Your task to perform on an android device: set the timer Image 0: 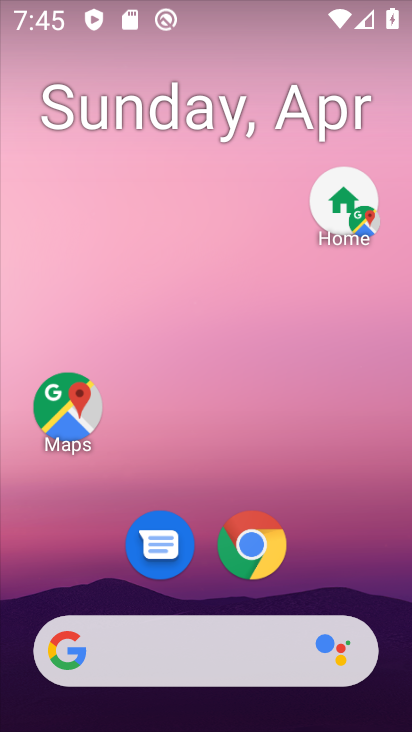
Step 0: drag from (313, 586) to (295, 130)
Your task to perform on an android device: set the timer Image 1: 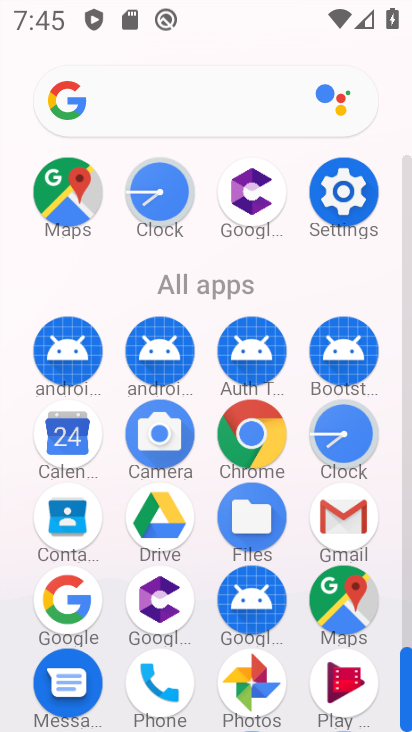
Step 1: click (334, 429)
Your task to perform on an android device: set the timer Image 2: 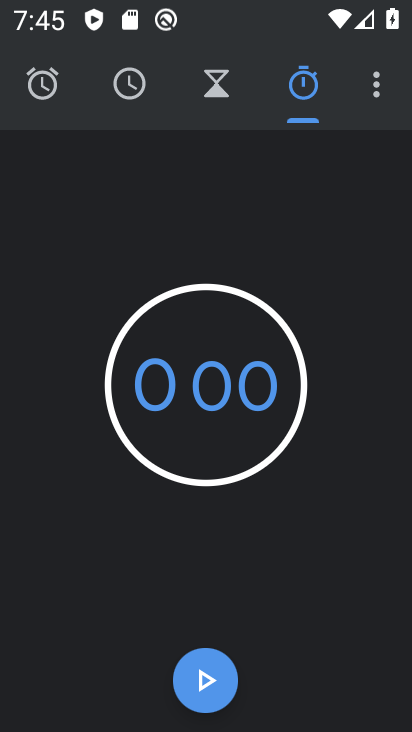
Step 2: click (221, 71)
Your task to perform on an android device: set the timer Image 3: 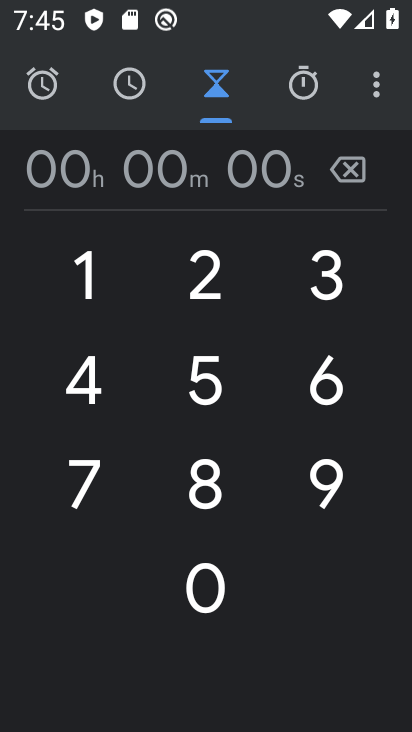
Step 3: click (92, 179)
Your task to perform on an android device: set the timer Image 4: 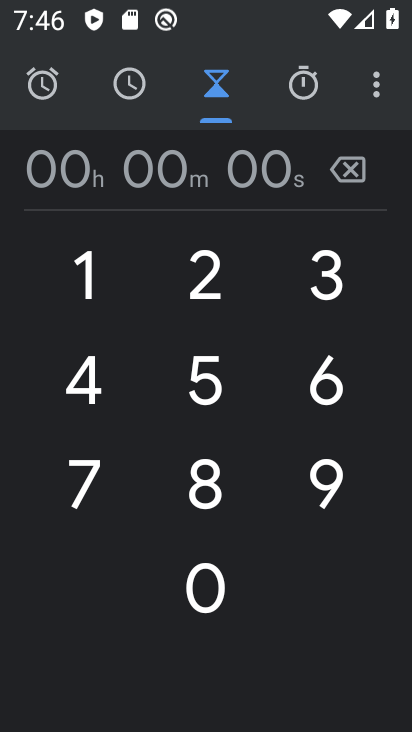
Step 4: type "45"
Your task to perform on an android device: set the timer Image 5: 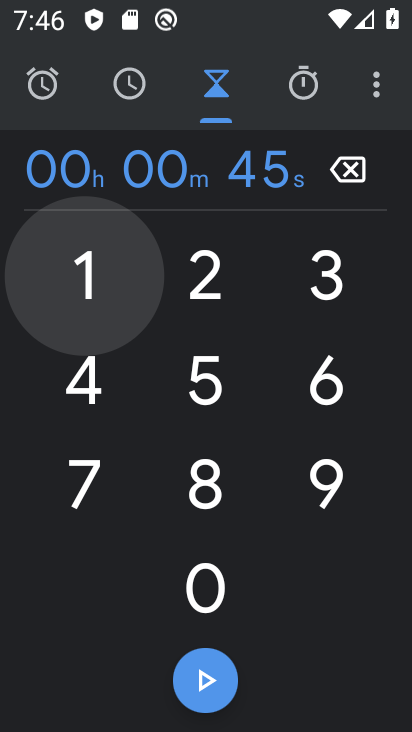
Step 5: type "98"
Your task to perform on an android device: set the timer Image 6: 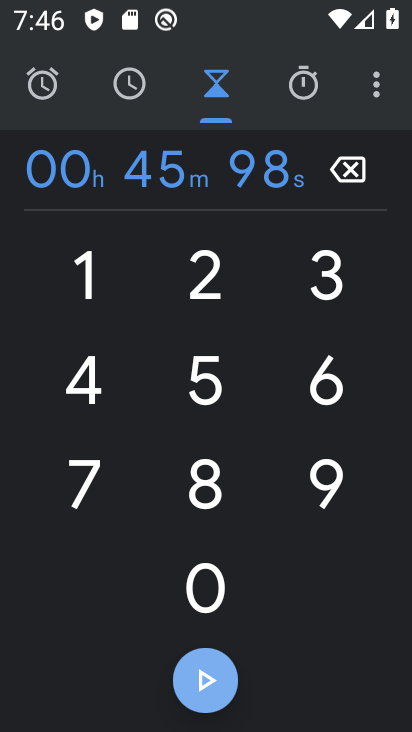
Step 6: type "00"
Your task to perform on an android device: set the timer Image 7: 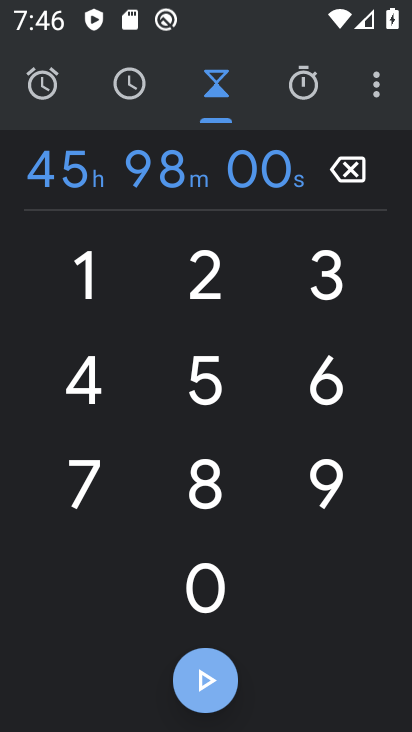
Step 7: click (209, 689)
Your task to perform on an android device: set the timer Image 8: 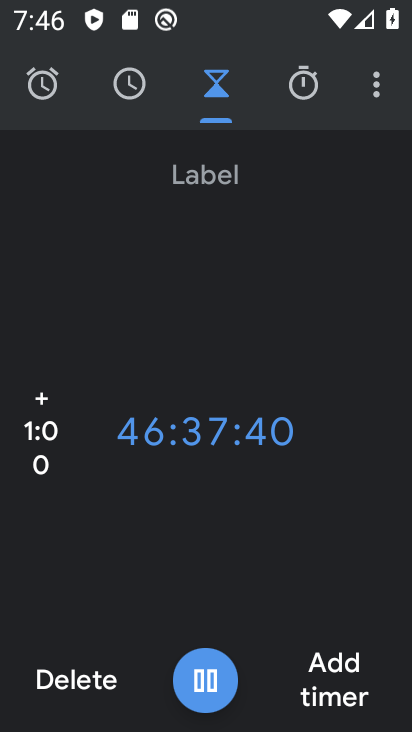
Step 8: task complete